Your task to perform on an android device: find photos in the google photos app Image 0: 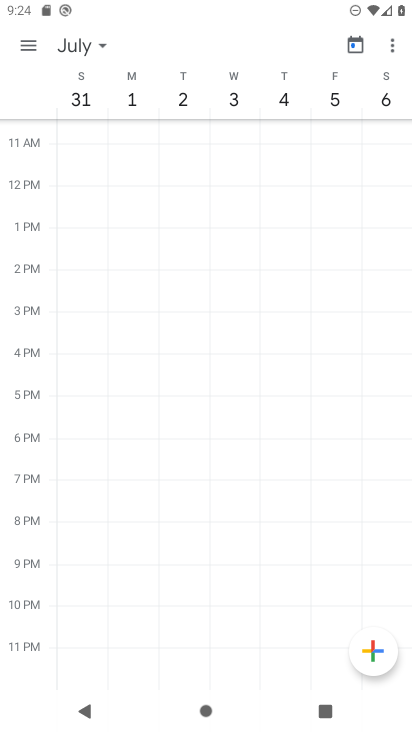
Step 0: press home button
Your task to perform on an android device: find photos in the google photos app Image 1: 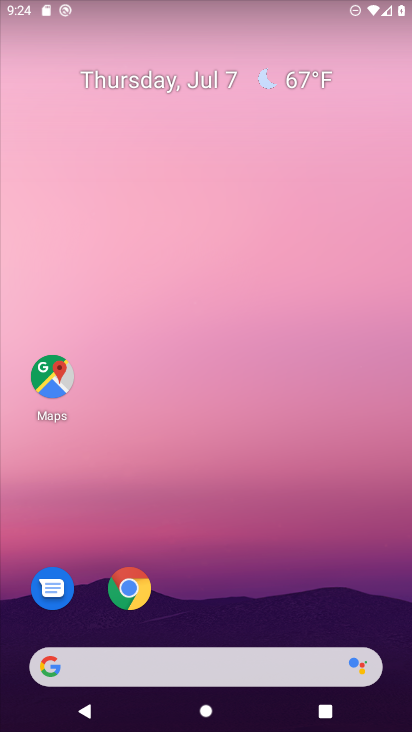
Step 1: drag from (236, 609) to (240, 90)
Your task to perform on an android device: find photos in the google photos app Image 2: 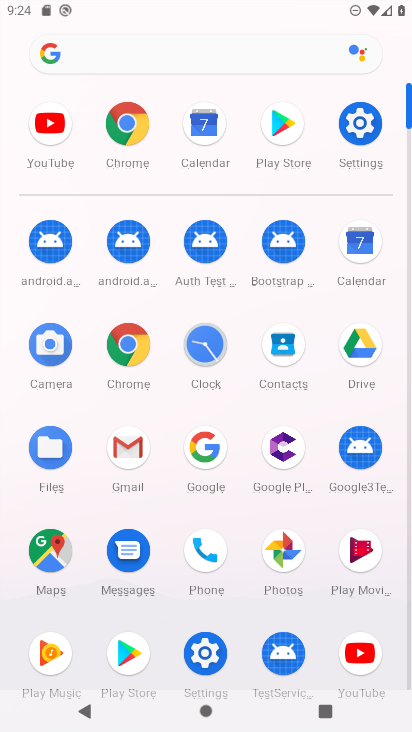
Step 2: click (285, 548)
Your task to perform on an android device: find photos in the google photos app Image 3: 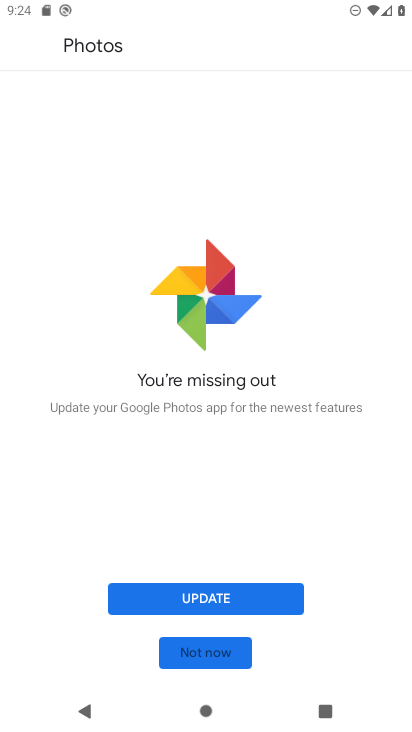
Step 3: click (223, 596)
Your task to perform on an android device: find photos in the google photos app Image 4: 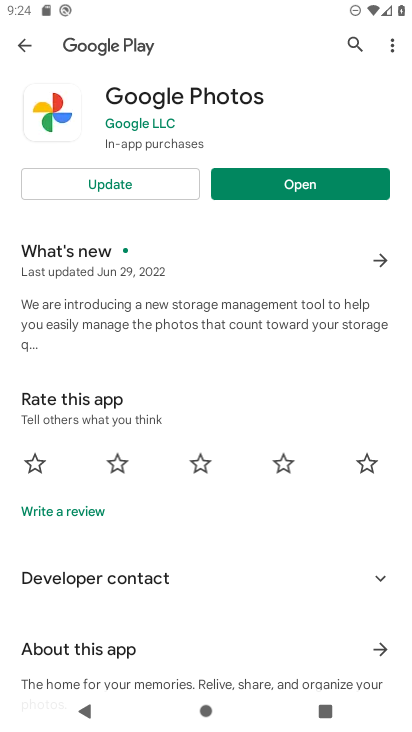
Step 4: click (136, 186)
Your task to perform on an android device: find photos in the google photos app Image 5: 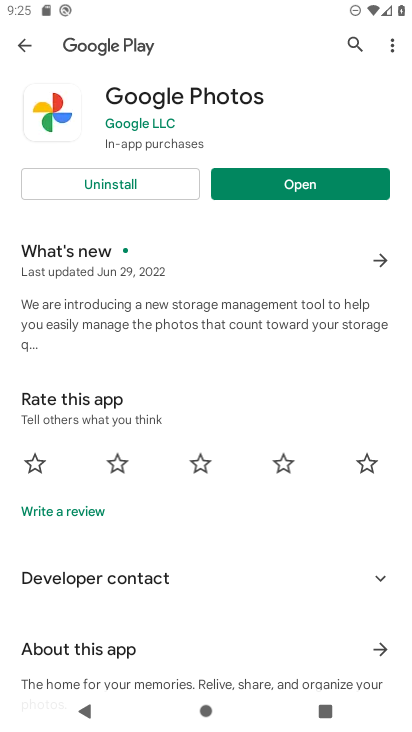
Step 5: click (299, 180)
Your task to perform on an android device: find photos in the google photos app Image 6: 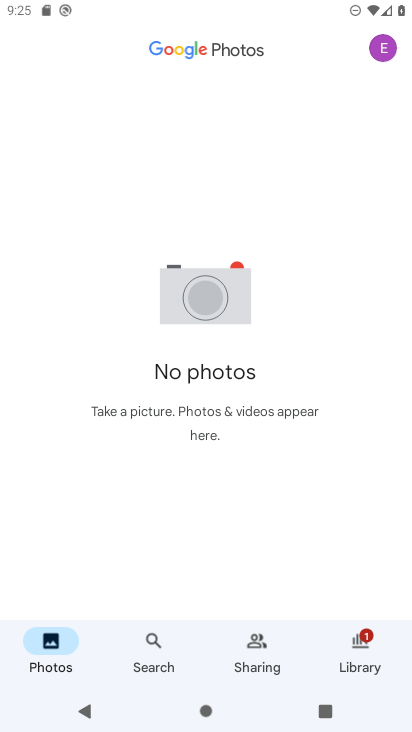
Step 6: click (148, 637)
Your task to perform on an android device: find photos in the google photos app Image 7: 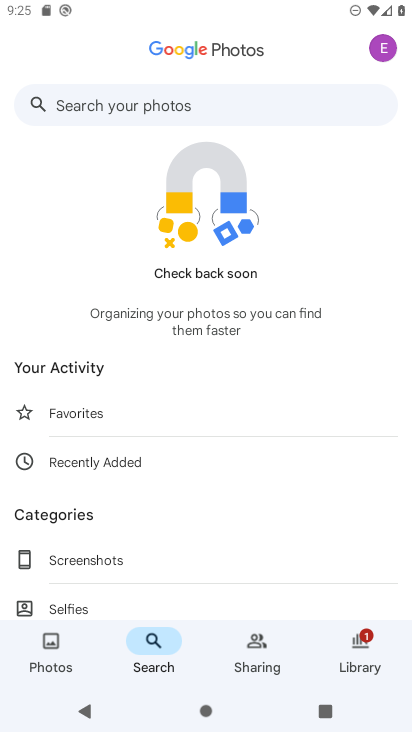
Step 7: click (93, 414)
Your task to perform on an android device: find photos in the google photos app Image 8: 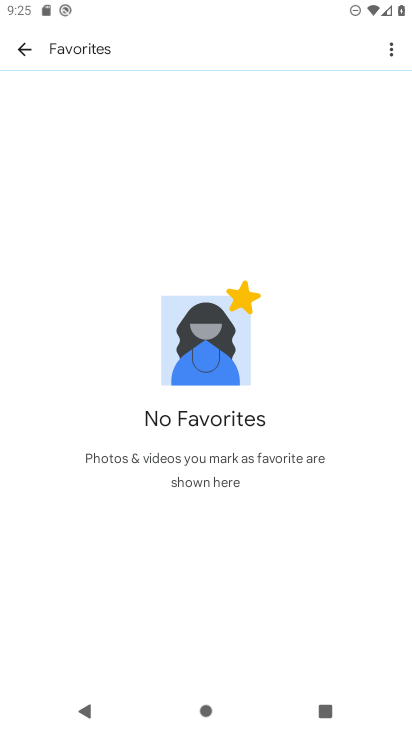
Step 8: click (85, 710)
Your task to perform on an android device: find photos in the google photos app Image 9: 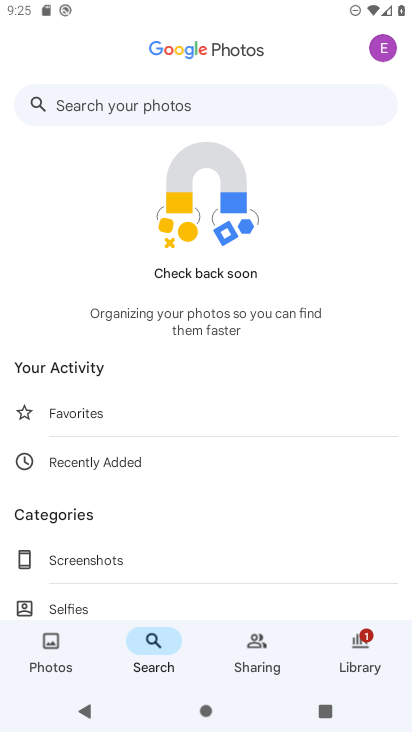
Step 9: click (123, 467)
Your task to perform on an android device: find photos in the google photos app Image 10: 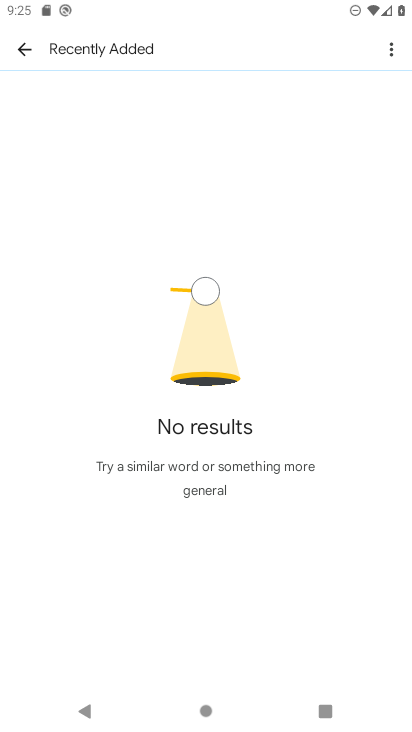
Step 10: click (91, 712)
Your task to perform on an android device: find photos in the google photos app Image 11: 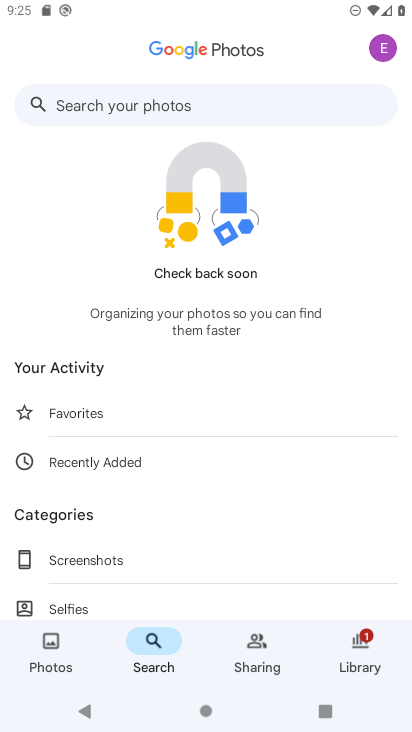
Step 11: drag from (156, 523) to (212, 404)
Your task to perform on an android device: find photos in the google photos app Image 12: 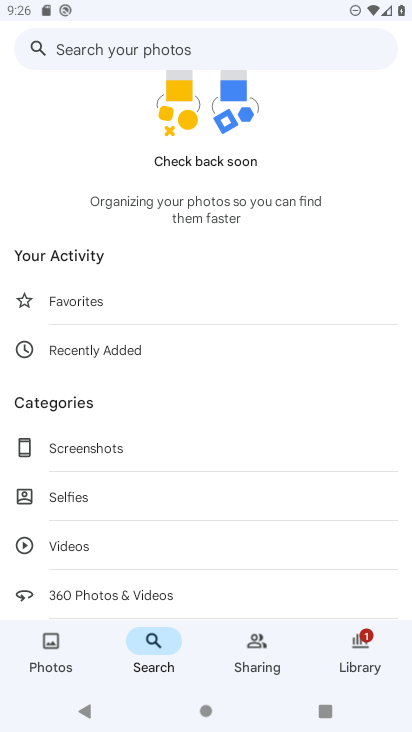
Step 12: drag from (98, 524) to (139, 450)
Your task to perform on an android device: find photos in the google photos app Image 13: 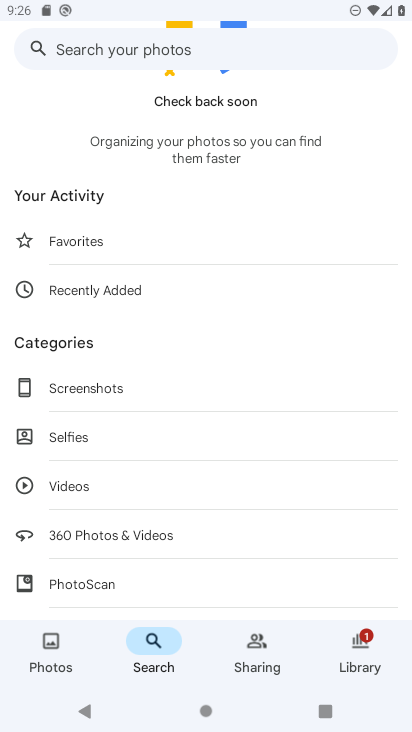
Step 13: click (87, 580)
Your task to perform on an android device: find photos in the google photos app Image 14: 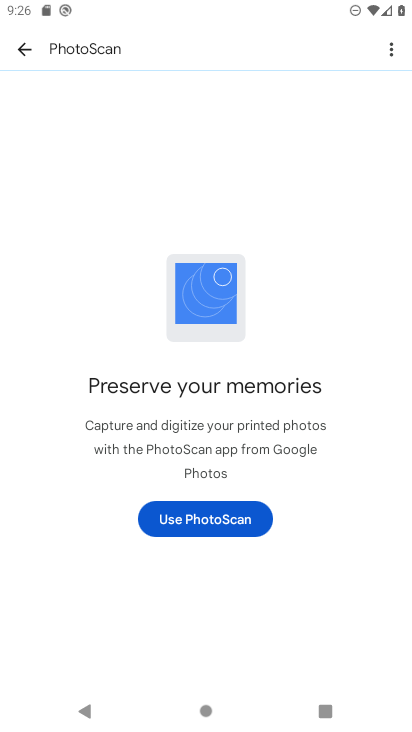
Step 14: task complete